Your task to perform on an android device: Do I have any events tomorrow? Image 0: 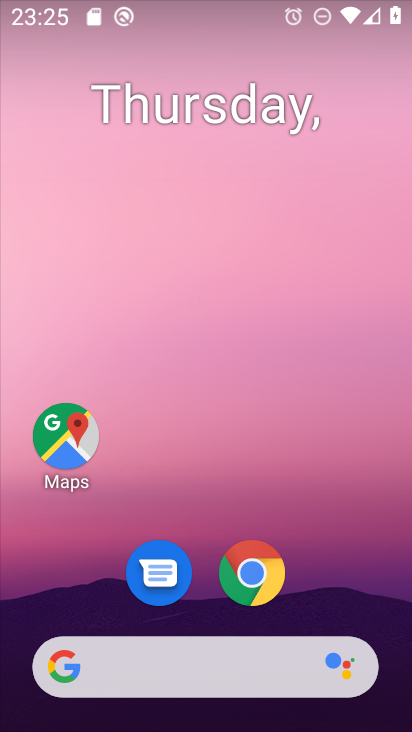
Step 0: drag from (321, 541) to (225, 101)
Your task to perform on an android device: Do I have any events tomorrow? Image 1: 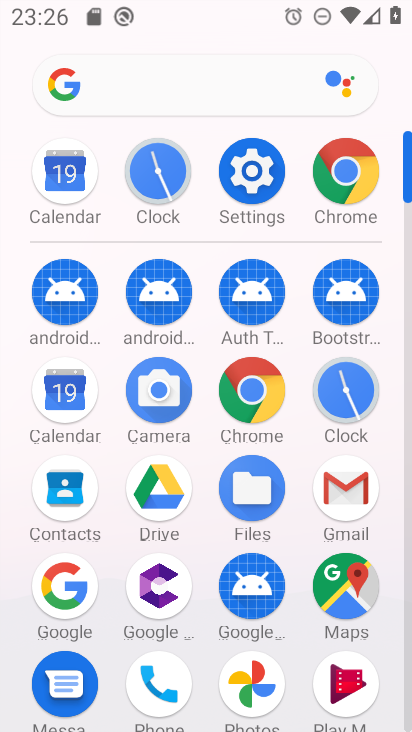
Step 1: click (53, 174)
Your task to perform on an android device: Do I have any events tomorrow? Image 2: 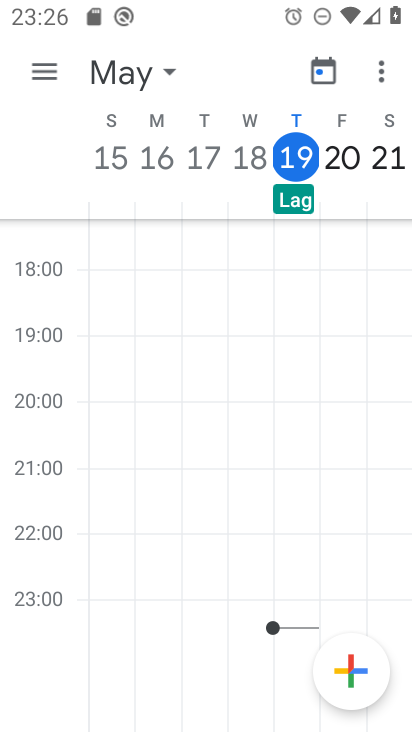
Step 2: task complete